Your task to perform on an android device: toggle airplane mode Image 0: 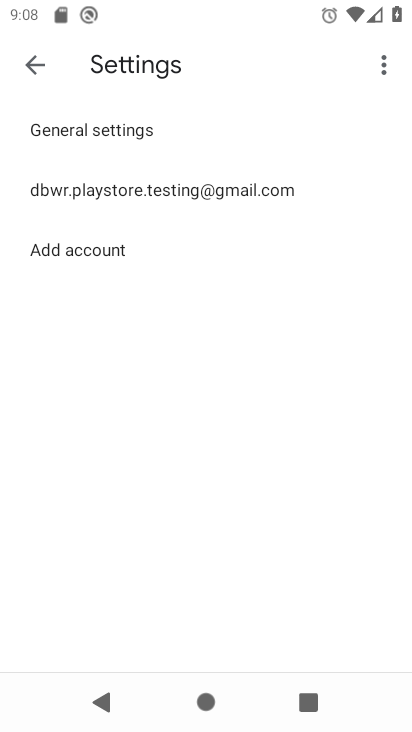
Step 0: press home button
Your task to perform on an android device: toggle airplane mode Image 1: 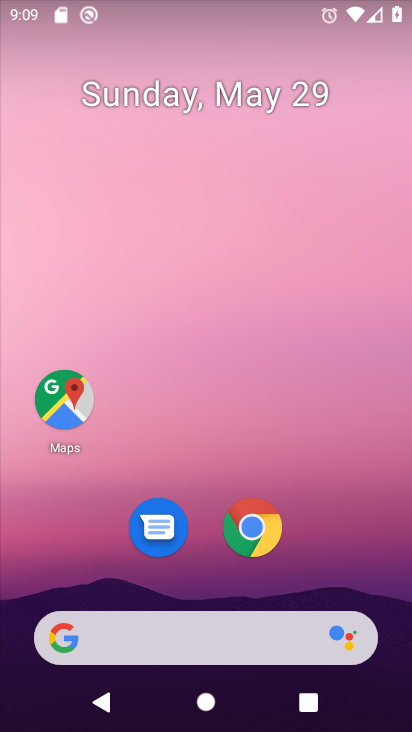
Step 1: drag from (278, 9) to (278, 512)
Your task to perform on an android device: toggle airplane mode Image 2: 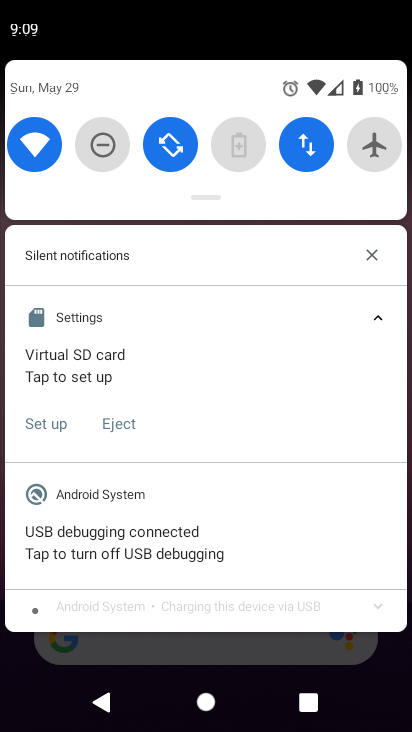
Step 2: click (377, 146)
Your task to perform on an android device: toggle airplane mode Image 3: 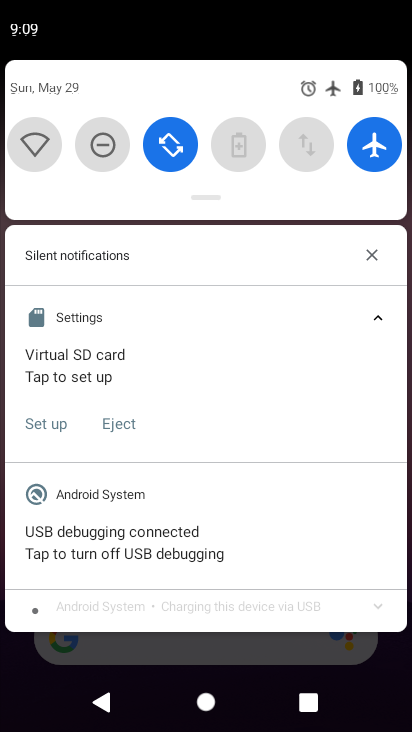
Step 3: task complete